Your task to perform on an android device: Clear the cart on bestbuy.com. Add "alienware aurora" to the cart on bestbuy.com Image 0: 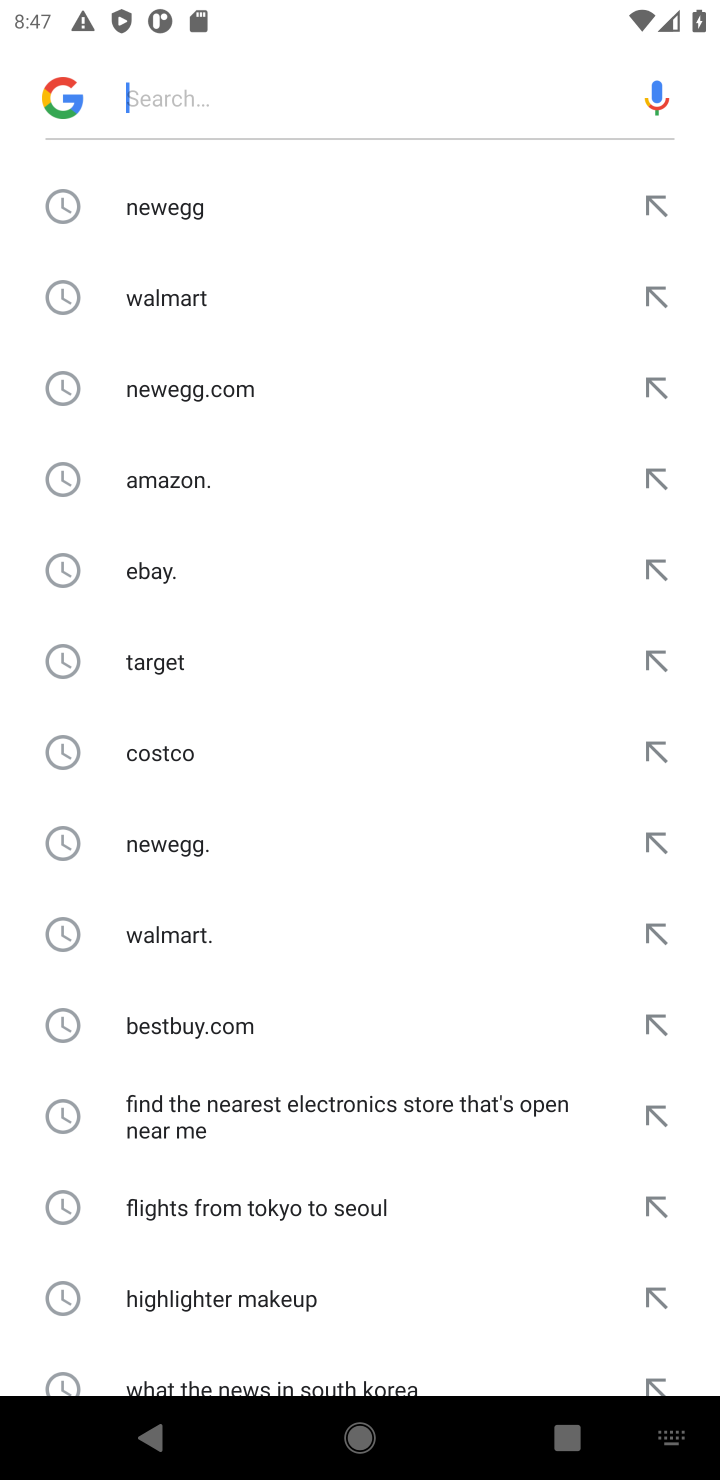
Step 0: type "bestbuy.com"
Your task to perform on an android device: Clear the cart on bestbuy.com. Add "alienware aurora" to the cart on bestbuy.com Image 1: 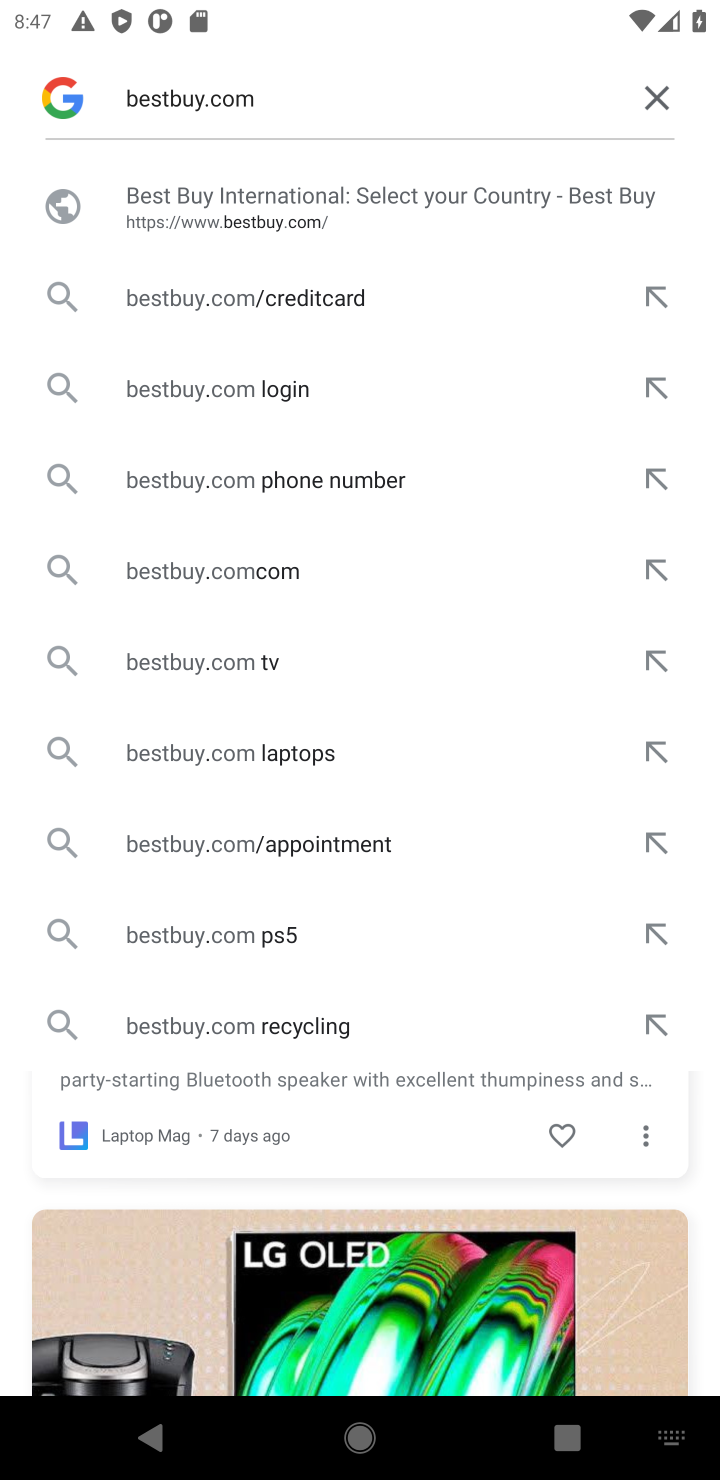
Step 1: press enter
Your task to perform on an android device: Clear the cart on bestbuy.com. Add "alienware aurora" to the cart on bestbuy.com Image 2: 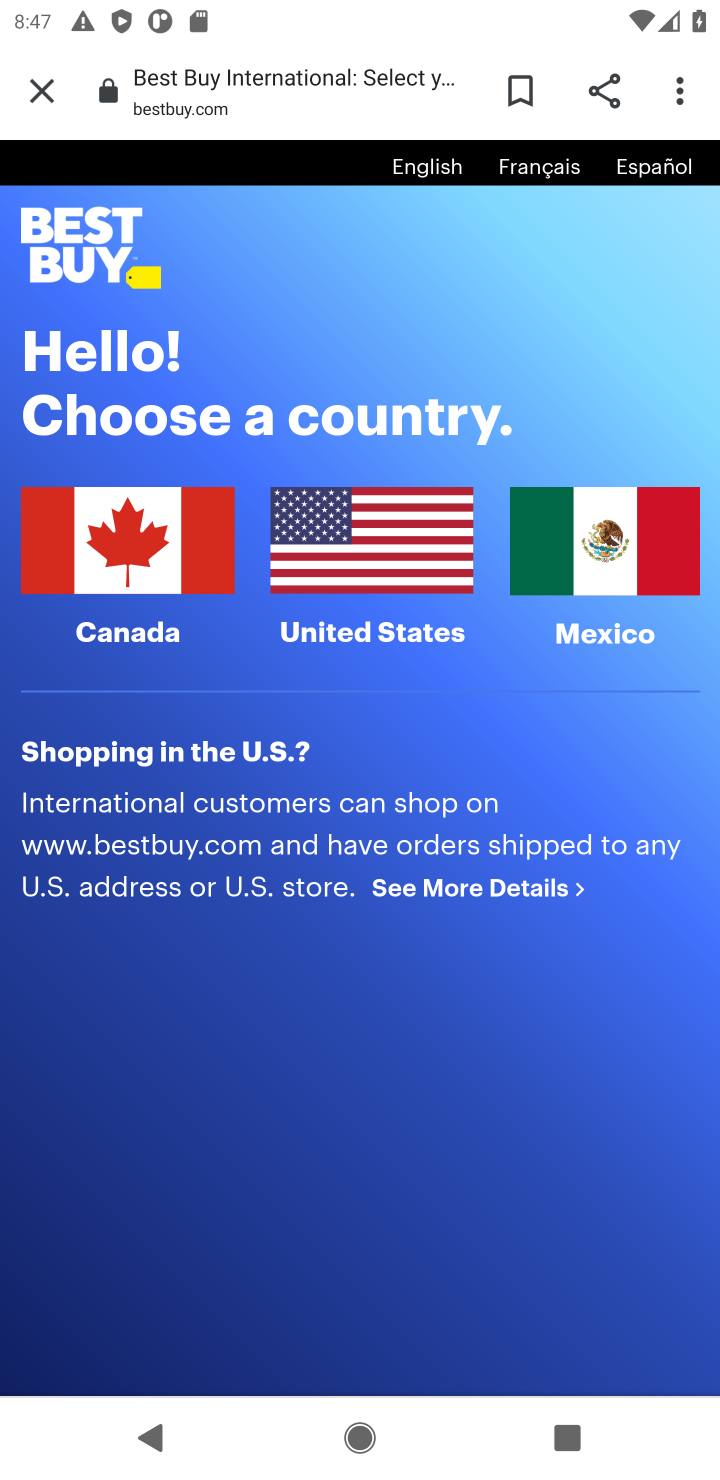
Step 2: click (131, 524)
Your task to perform on an android device: Clear the cart on bestbuy.com. Add "alienware aurora" to the cart on bestbuy.com Image 3: 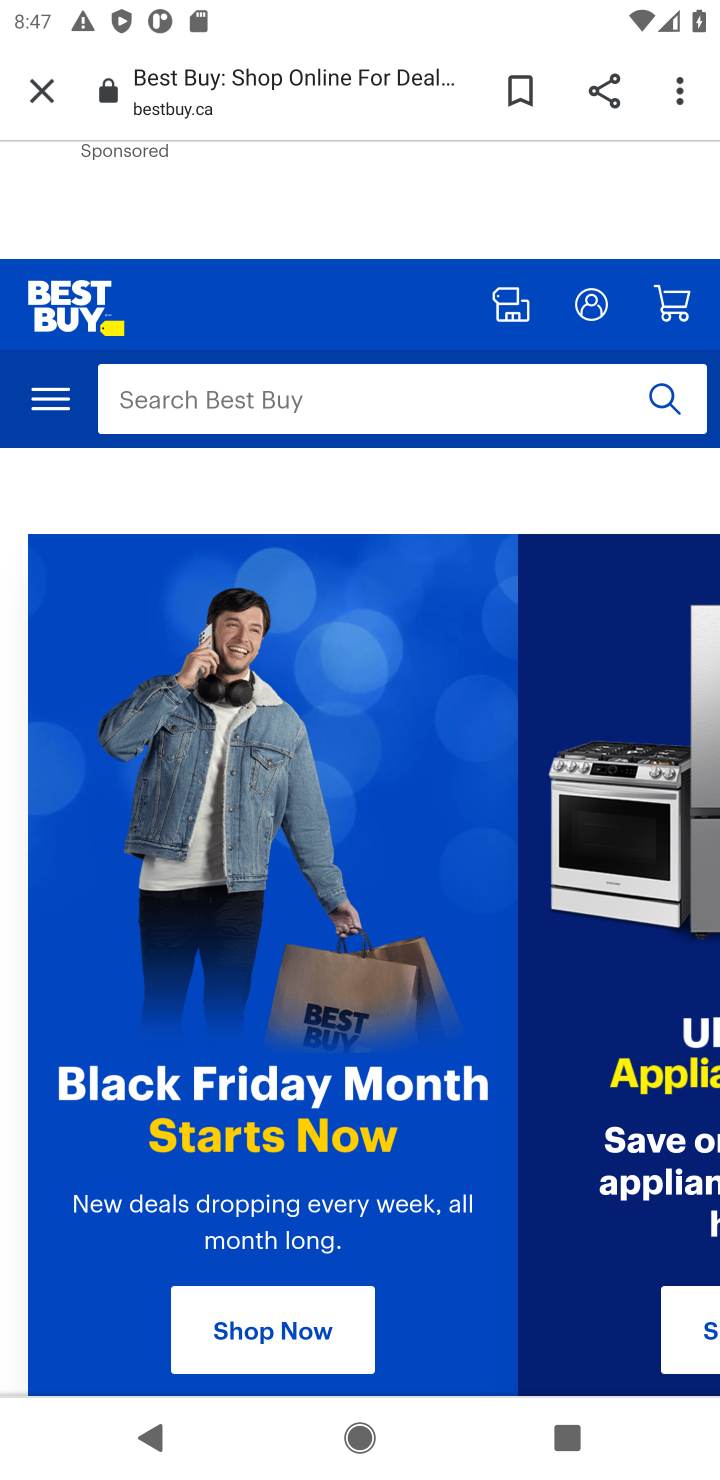
Step 3: click (684, 280)
Your task to perform on an android device: Clear the cart on bestbuy.com. Add "alienware aurora" to the cart on bestbuy.com Image 4: 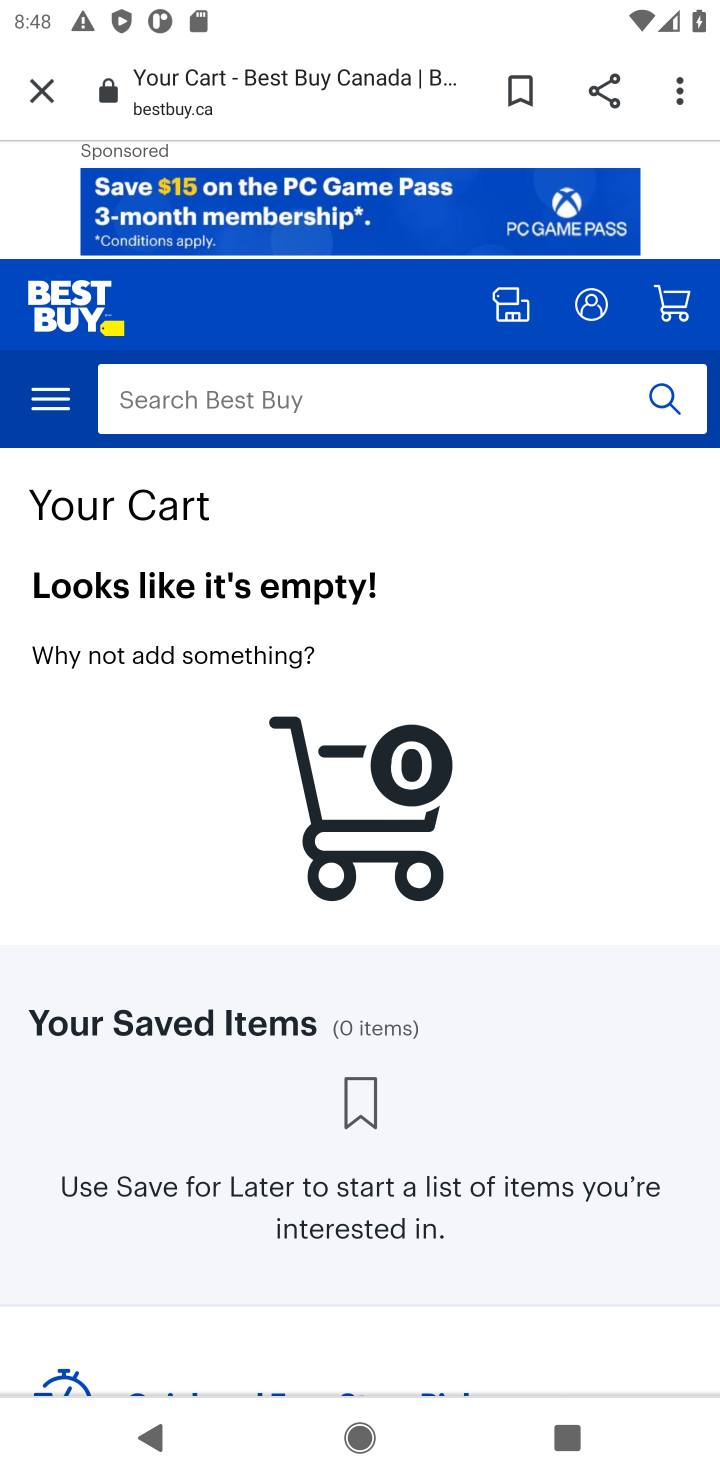
Step 4: click (420, 420)
Your task to perform on an android device: Clear the cart on bestbuy.com. Add "alienware aurora" to the cart on bestbuy.com Image 5: 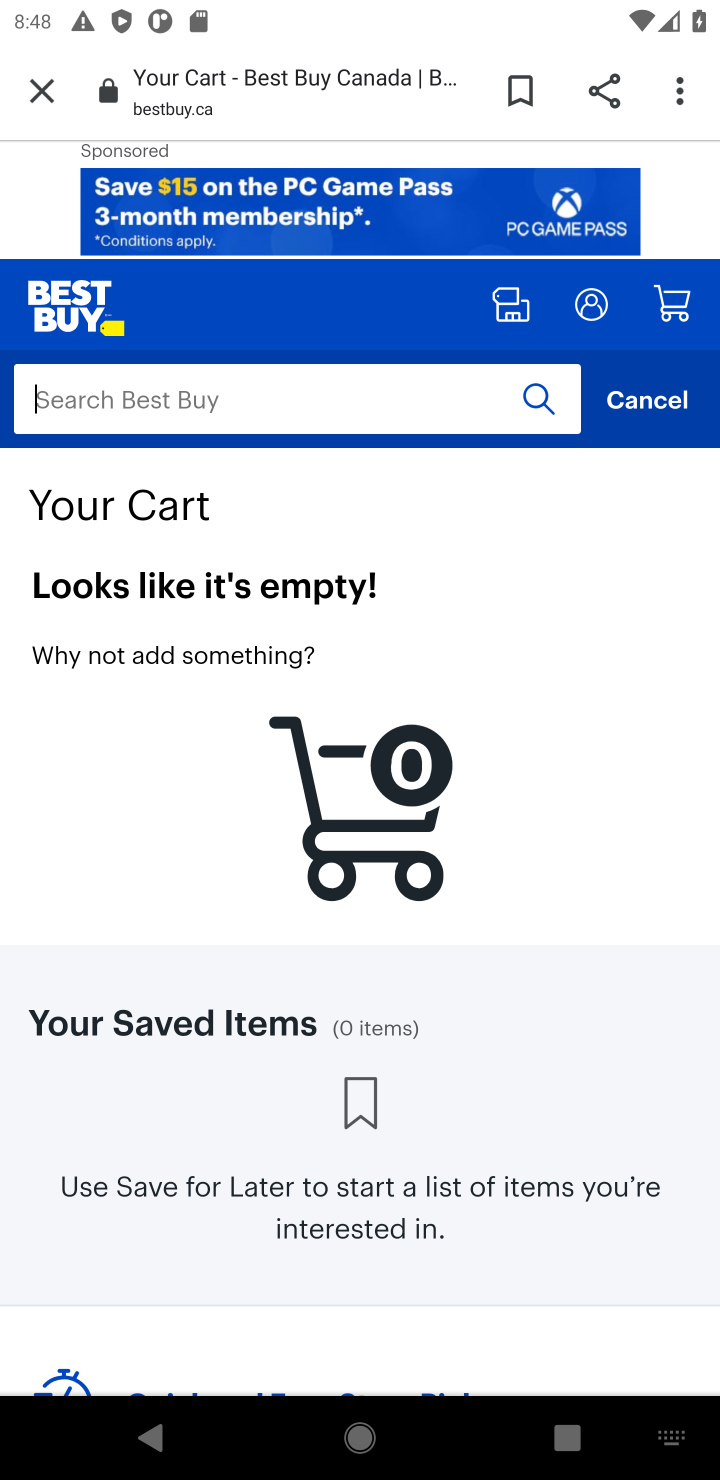
Step 5: type "alienware aurora"
Your task to perform on an android device: Clear the cart on bestbuy.com. Add "alienware aurora" to the cart on bestbuy.com Image 6: 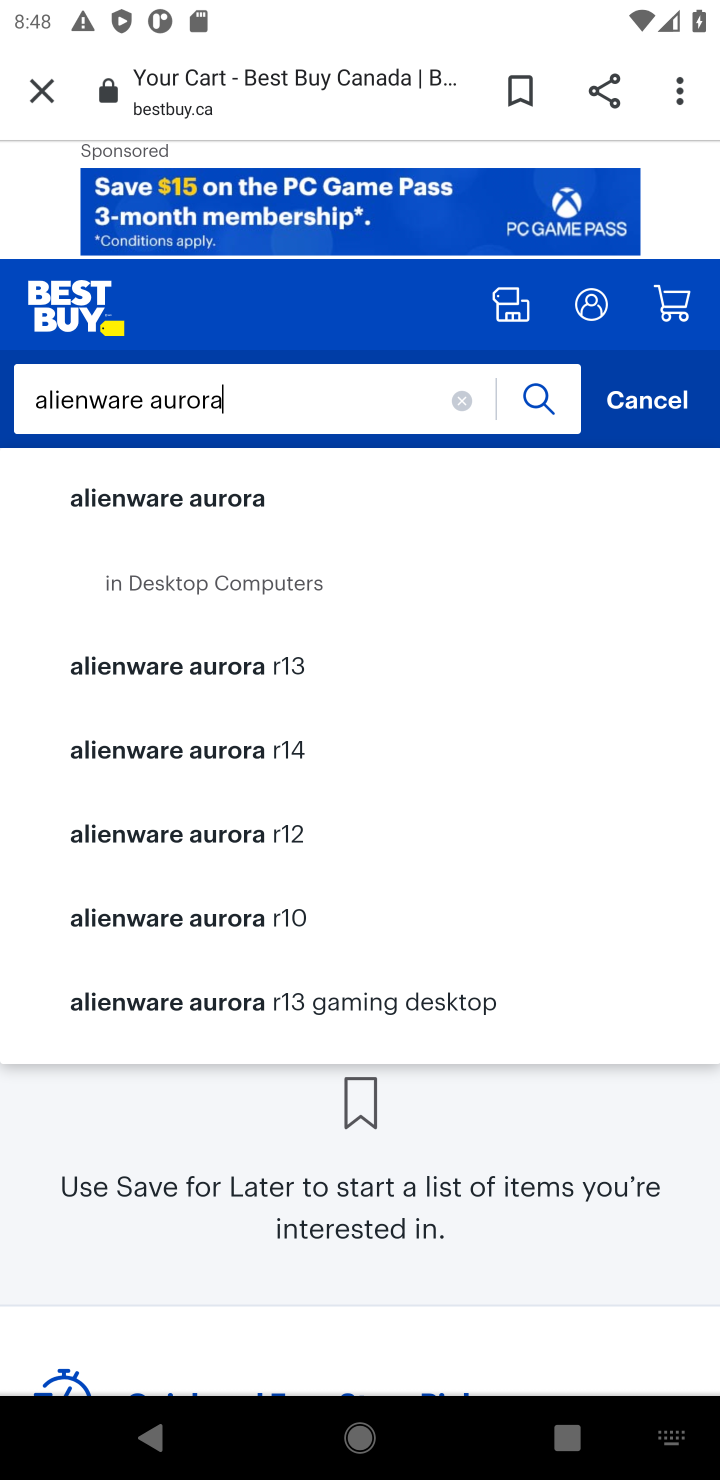
Step 6: press enter
Your task to perform on an android device: Clear the cart on bestbuy.com. Add "alienware aurora" to the cart on bestbuy.com Image 7: 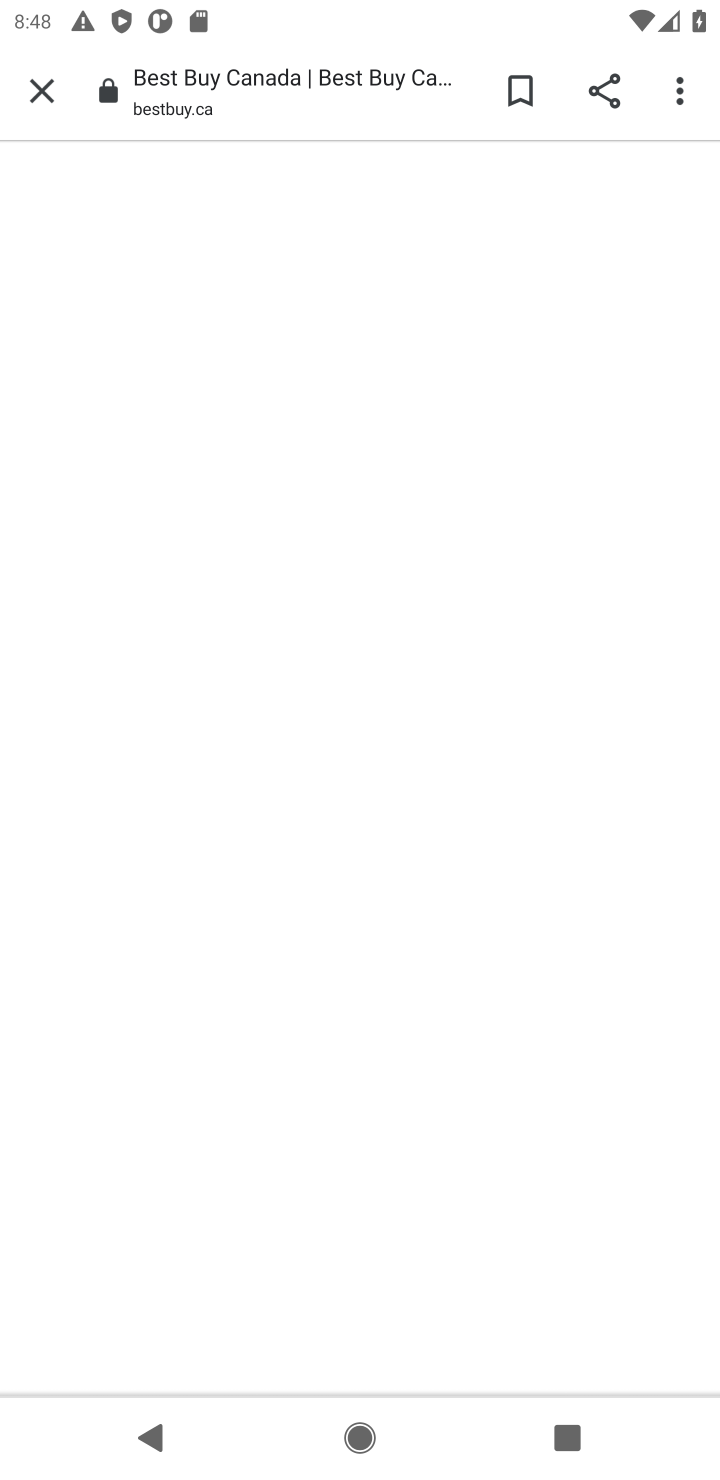
Step 7: press enter
Your task to perform on an android device: Clear the cart on bestbuy.com. Add "alienware aurora" to the cart on bestbuy.com Image 8: 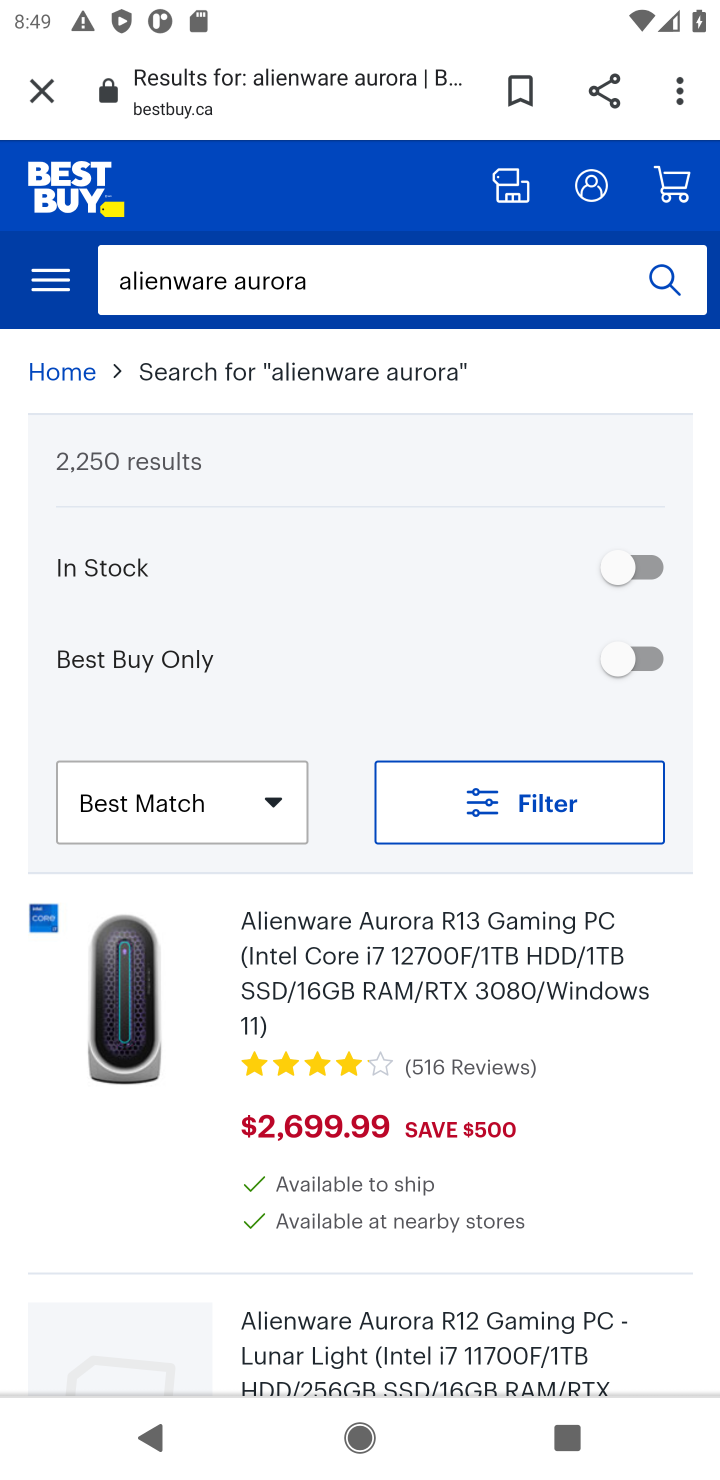
Step 8: drag from (525, 1107) to (560, 542)
Your task to perform on an android device: Clear the cart on bestbuy.com. Add "alienware aurora" to the cart on bestbuy.com Image 9: 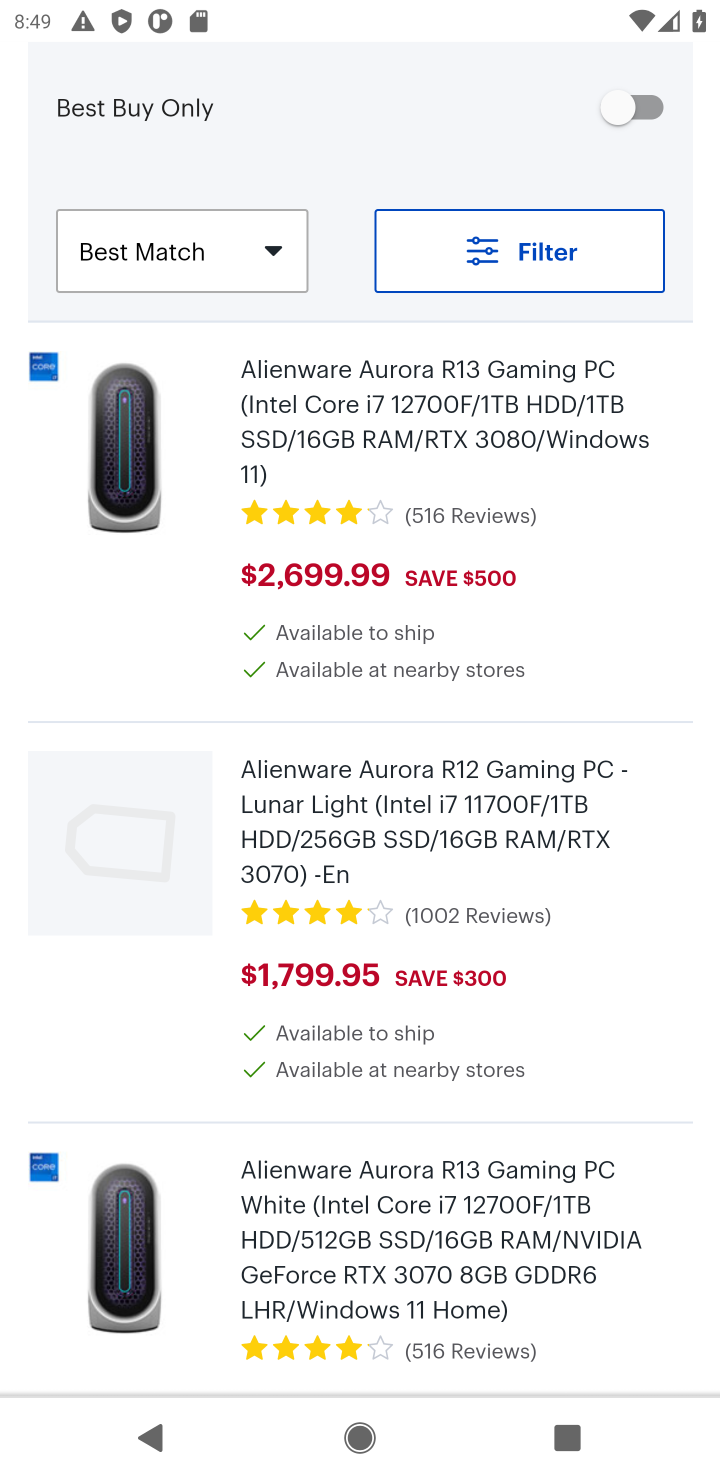
Step 9: click (394, 388)
Your task to perform on an android device: Clear the cart on bestbuy.com. Add "alienware aurora" to the cart on bestbuy.com Image 10: 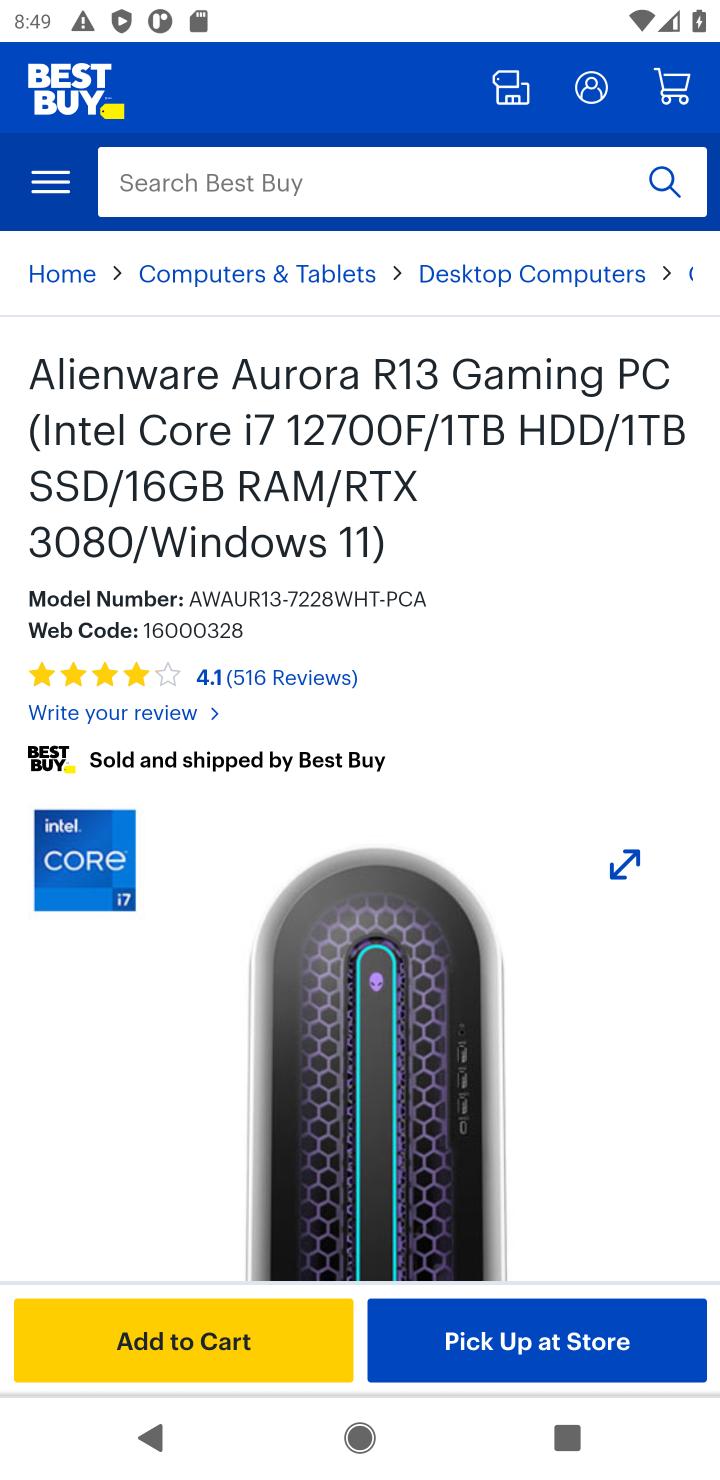
Step 10: drag from (357, 1070) to (301, 609)
Your task to perform on an android device: Clear the cart on bestbuy.com. Add "alienware aurora" to the cart on bestbuy.com Image 11: 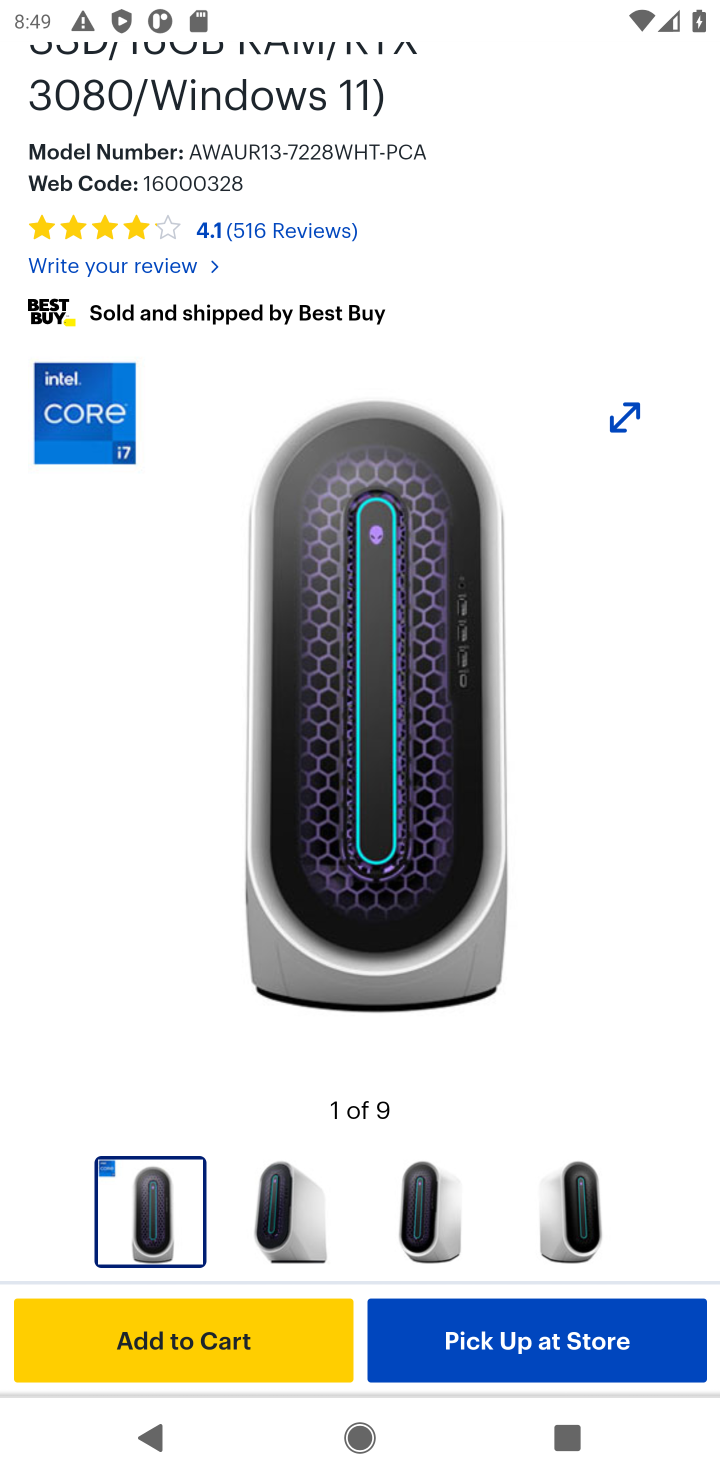
Step 11: click (270, 1312)
Your task to perform on an android device: Clear the cart on bestbuy.com. Add "alienware aurora" to the cart on bestbuy.com Image 12: 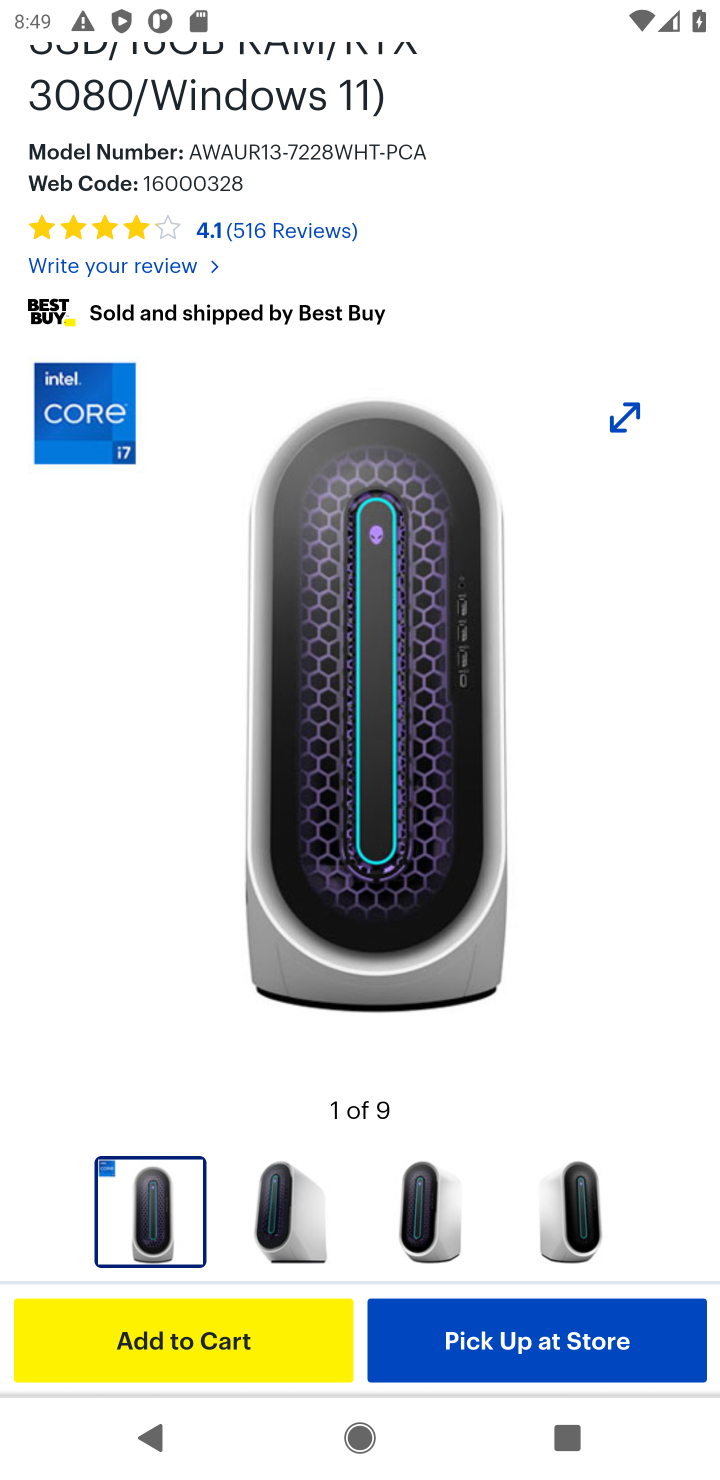
Step 12: drag from (657, 527) to (539, 483)
Your task to perform on an android device: Clear the cart on bestbuy.com. Add "alienware aurora" to the cart on bestbuy.com Image 13: 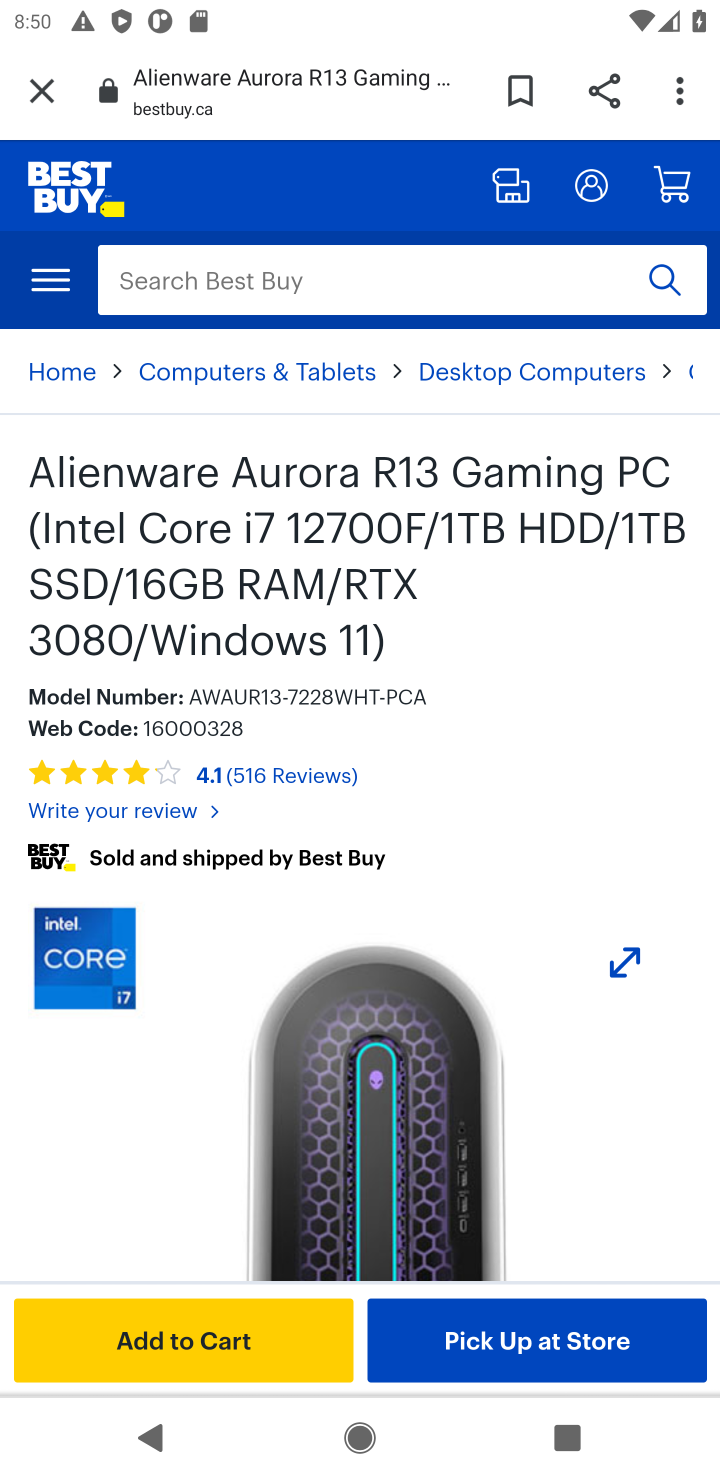
Step 13: click (184, 1335)
Your task to perform on an android device: Clear the cart on bestbuy.com. Add "alienware aurora" to the cart on bestbuy.com Image 14: 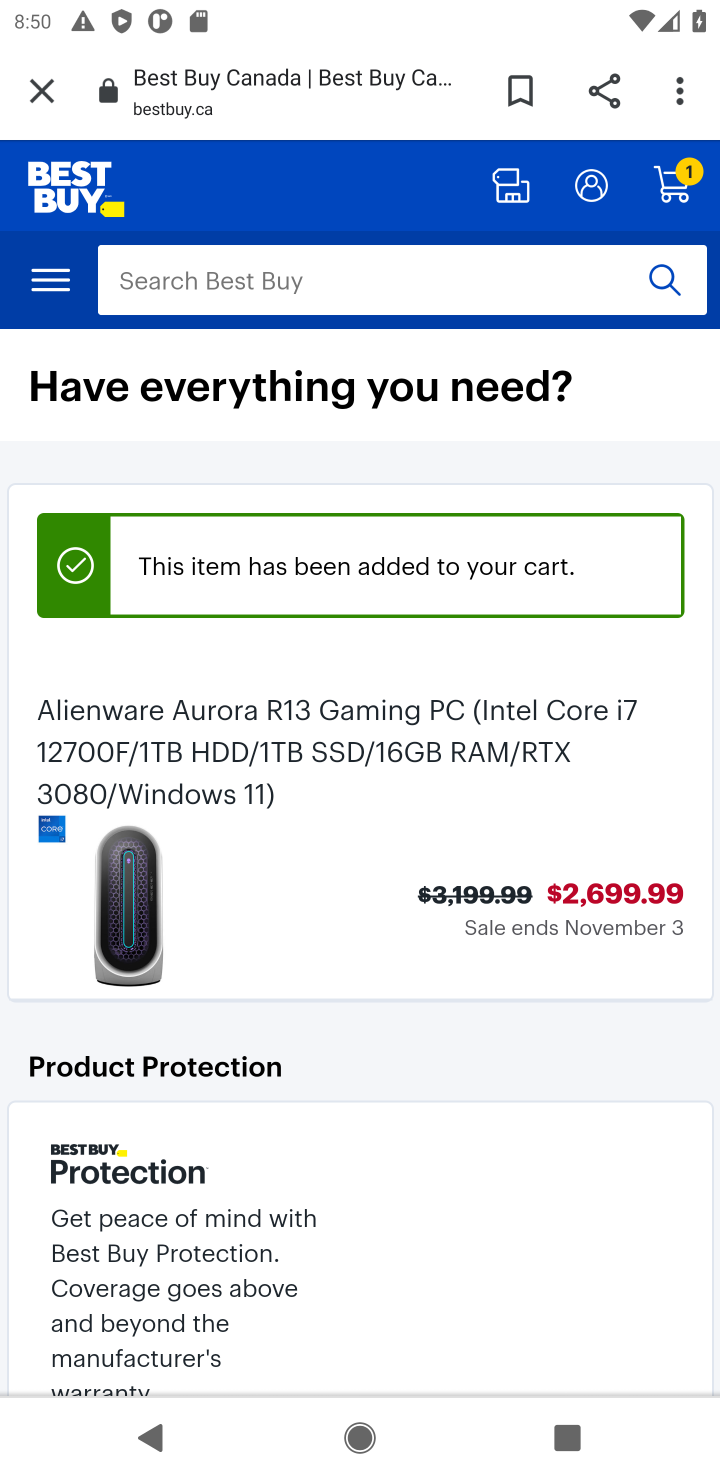
Step 14: task complete